Your task to perform on an android device: toggle priority inbox in the gmail app Image 0: 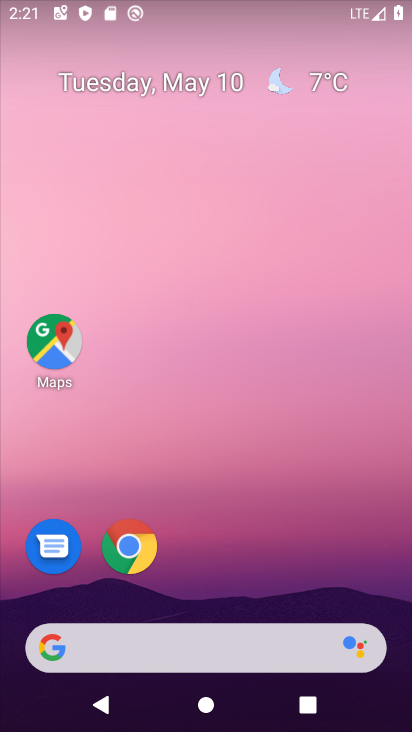
Step 0: drag from (318, 537) to (286, 136)
Your task to perform on an android device: toggle priority inbox in the gmail app Image 1: 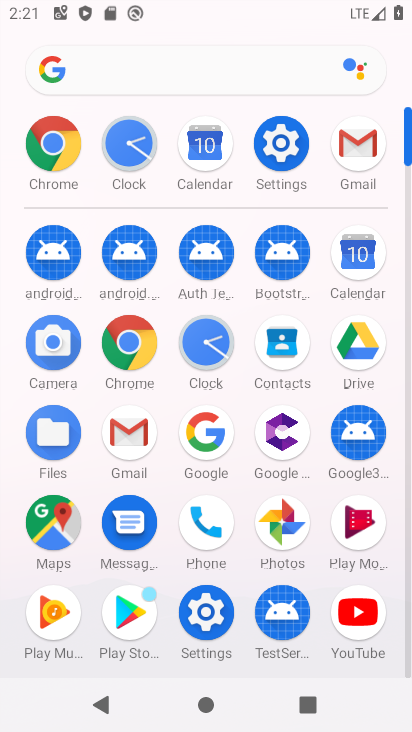
Step 1: click (350, 146)
Your task to perform on an android device: toggle priority inbox in the gmail app Image 2: 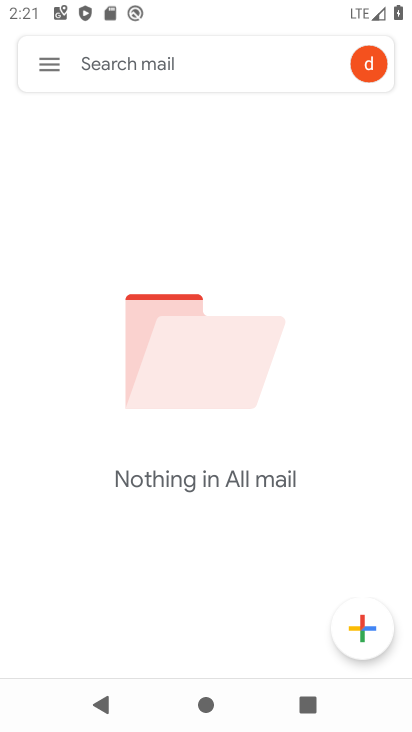
Step 2: click (46, 67)
Your task to perform on an android device: toggle priority inbox in the gmail app Image 3: 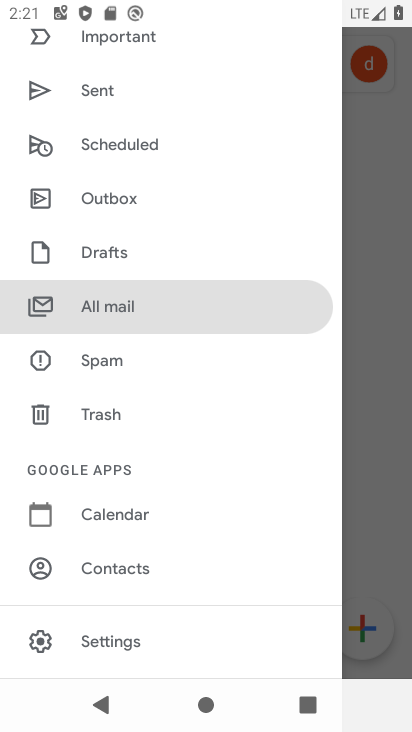
Step 3: click (104, 640)
Your task to perform on an android device: toggle priority inbox in the gmail app Image 4: 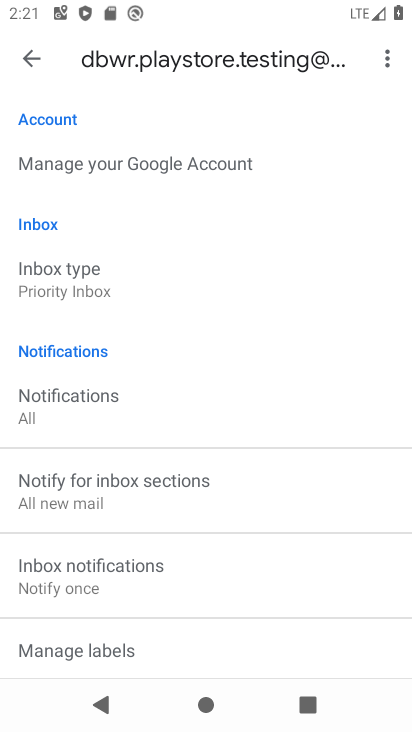
Step 4: click (71, 294)
Your task to perform on an android device: toggle priority inbox in the gmail app Image 5: 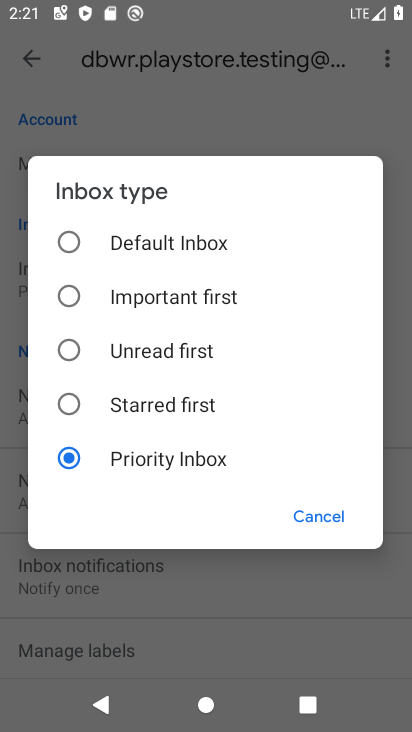
Step 5: click (72, 345)
Your task to perform on an android device: toggle priority inbox in the gmail app Image 6: 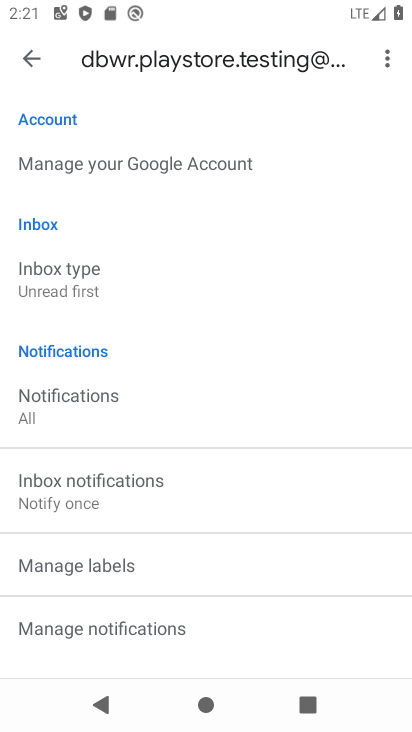
Step 6: task complete